Your task to perform on an android device: Open Amazon Image 0: 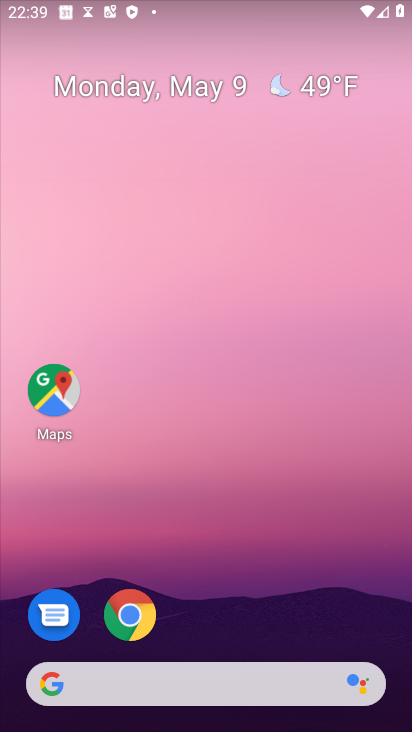
Step 0: click (134, 628)
Your task to perform on an android device: Open Amazon Image 1: 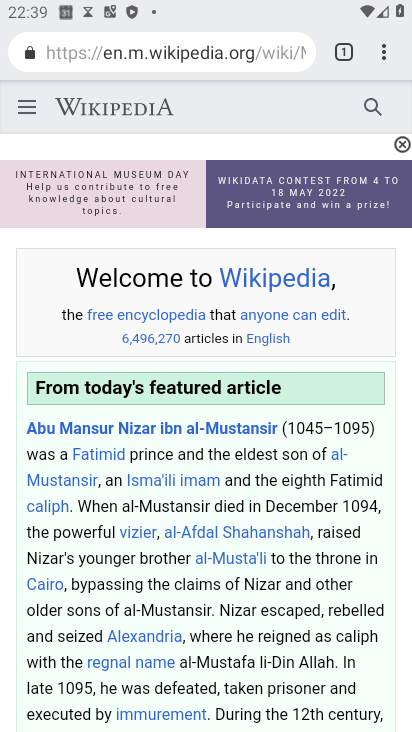
Step 1: click (163, 51)
Your task to perform on an android device: Open Amazon Image 2: 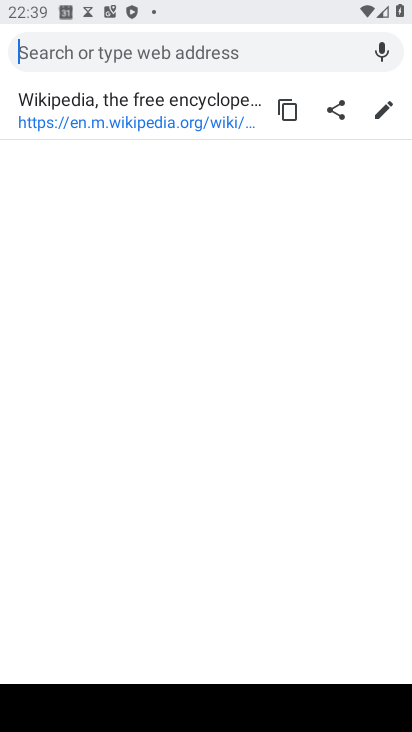
Step 2: type "amazon"
Your task to perform on an android device: Open Amazon Image 3: 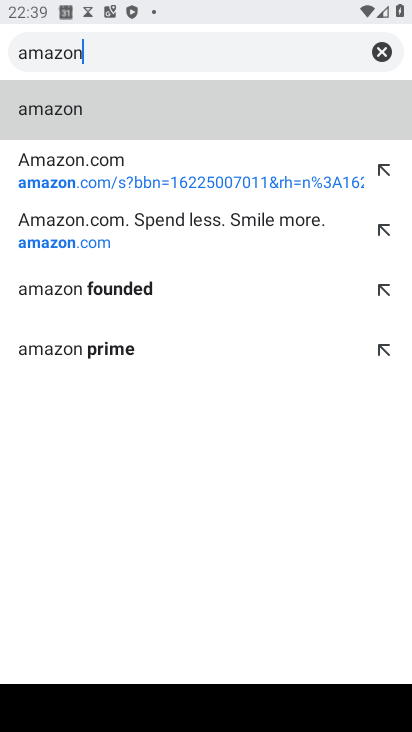
Step 3: click (54, 245)
Your task to perform on an android device: Open Amazon Image 4: 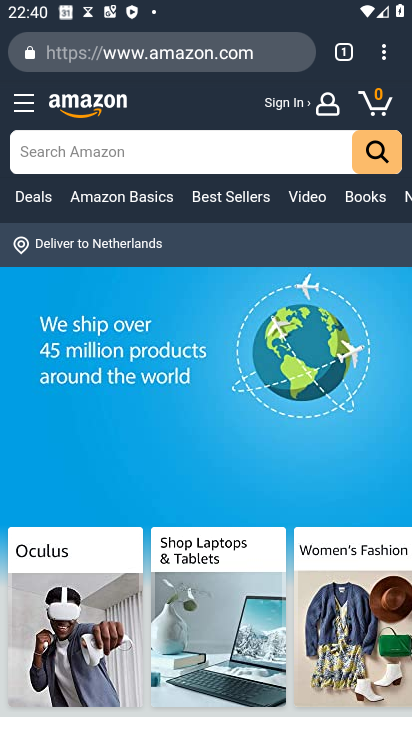
Step 4: task complete